Your task to perform on an android device: open app "Microsoft Excel" (install if not already installed), go to login, and select forgot password Image 0: 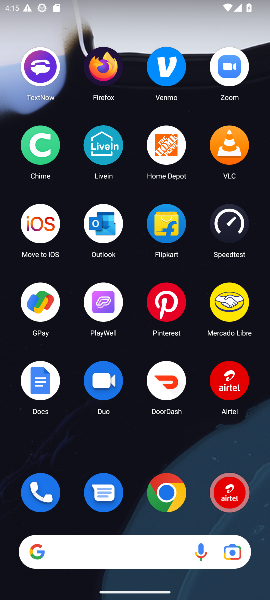
Step 0: drag from (133, 461) to (139, 3)
Your task to perform on an android device: open app "Microsoft Excel" (install if not already installed), go to login, and select forgot password Image 1: 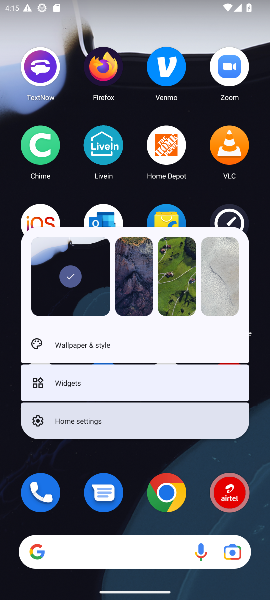
Step 1: click (137, 120)
Your task to perform on an android device: open app "Microsoft Excel" (install if not already installed), go to login, and select forgot password Image 2: 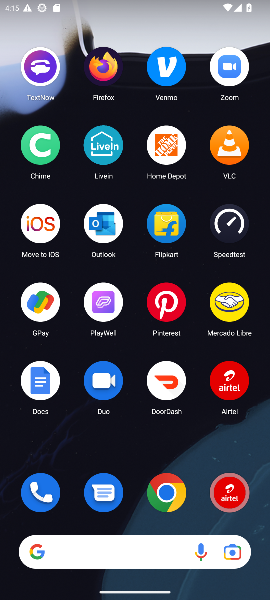
Step 2: drag from (137, 475) to (142, 87)
Your task to perform on an android device: open app "Microsoft Excel" (install if not already installed), go to login, and select forgot password Image 3: 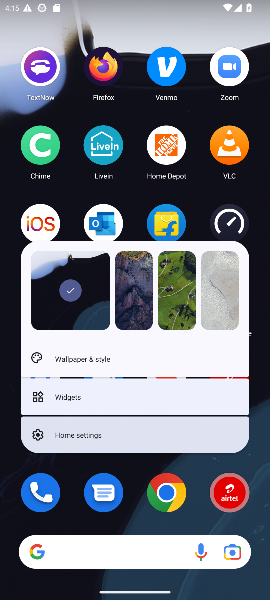
Step 3: click (142, 89)
Your task to perform on an android device: open app "Microsoft Excel" (install if not already installed), go to login, and select forgot password Image 4: 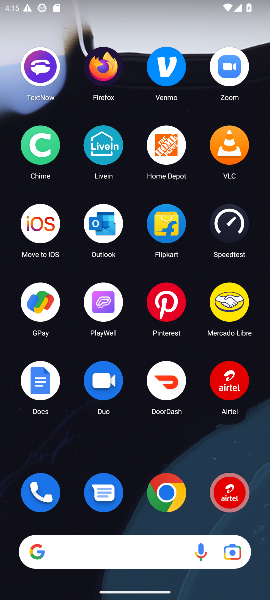
Step 4: drag from (129, 454) to (129, 19)
Your task to perform on an android device: open app "Microsoft Excel" (install if not already installed), go to login, and select forgot password Image 5: 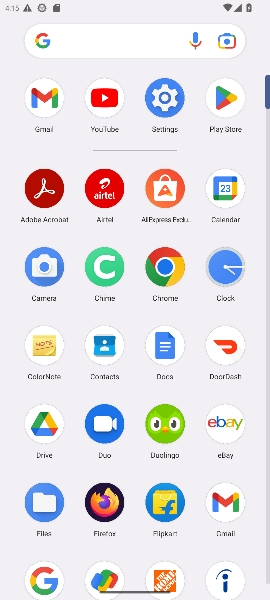
Step 5: click (232, 103)
Your task to perform on an android device: open app "Microsoft Excel" (install if not already installed), go to login, and select forgot password Image 6: 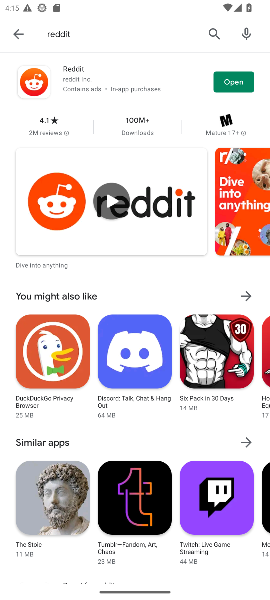
Step 6: click (222, 42)
Your task to perform on an android device: open app "Microsoft Excel" (install if not already installed), go to login, and select forgot password Image 7: 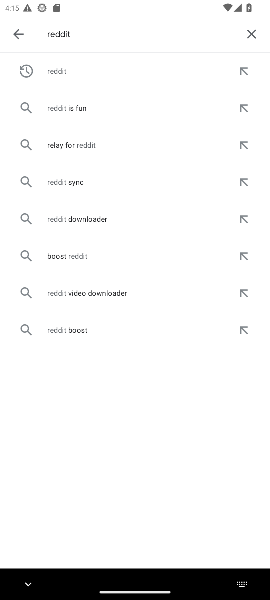
Step 7: click (259, 35)
Your task to perform on an android device: open app "Microsoft Excel" (install if not already installed), go to login, and select forgot password Image 8: 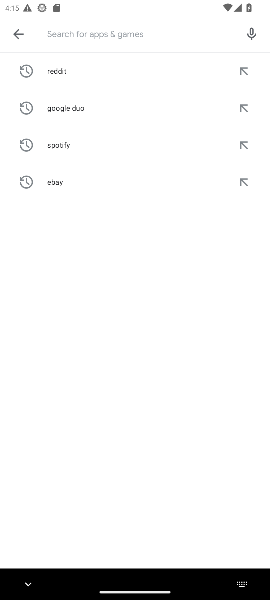
Step 8: type "microsoft excel"
Your task to perform on an android device: open app "Microsoft Excel" (install if not already installed), go to login, and select forgot password Image 9: 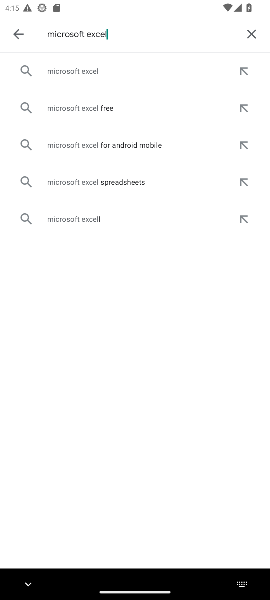
Step 9: click (123, 79)
Your task to perform on an android device: open app "Microsoft Excel" (install if not already installed), go to login, and select forgot password Image 10: 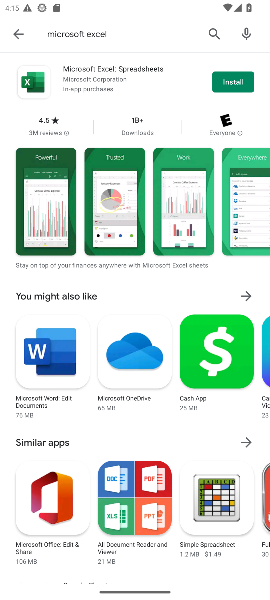
Step 10: click (235, 85)
Your task to perform on an android device: open app "Microsoft Excel" (install if not already installed), go to login, and select forgot password Image 11: 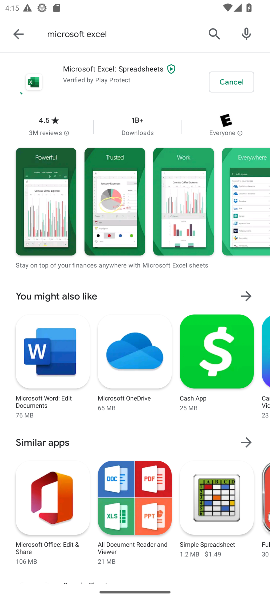
Step 11: task complete